Your task to perform on an android device: What's on my calendar today? Image 0: 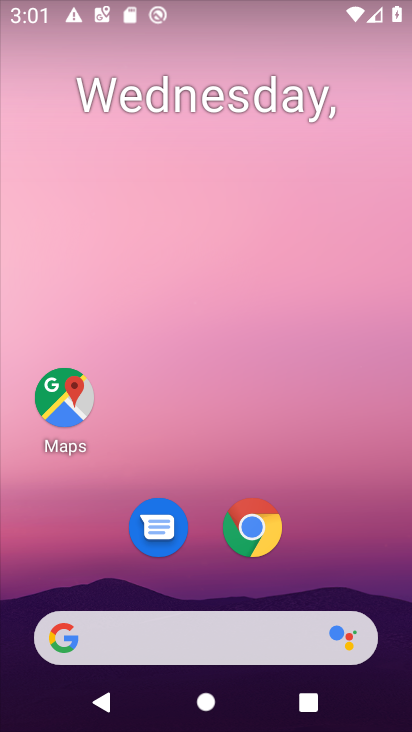
Step 0: drag from (315, 489) to (326, 92)
Your task to perform on an android device: What's on my calendar today? Image 1: 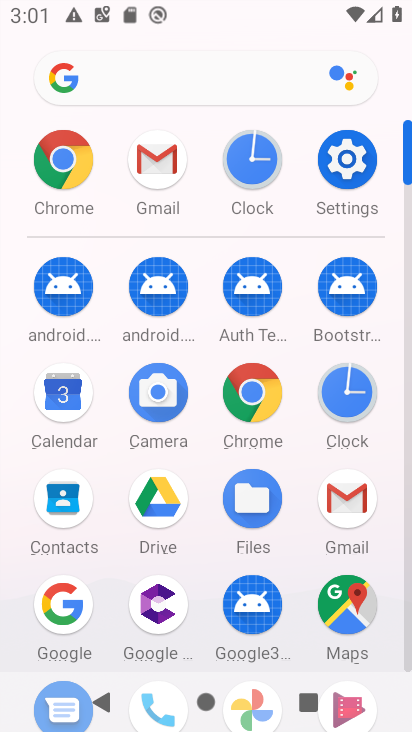
Step 1: click (71, 400)
Your task to perform on an android device: What's on my calendar today? Image 2: 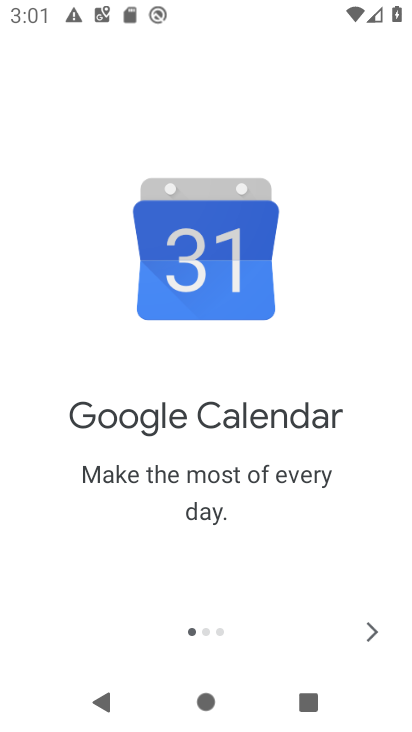
Step 2: click (364, 622)
Your task to perform on an android device: What's on my calendar today? Image 3: 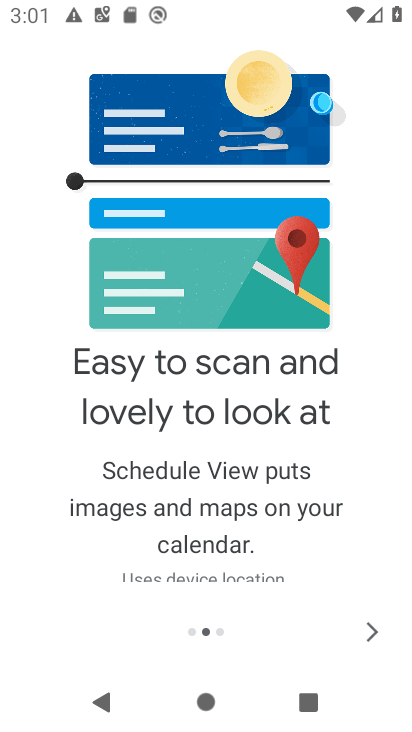
Step 3: click (386, 632)
Your task to perform on an android device: What's on my calendar today? Image 4: 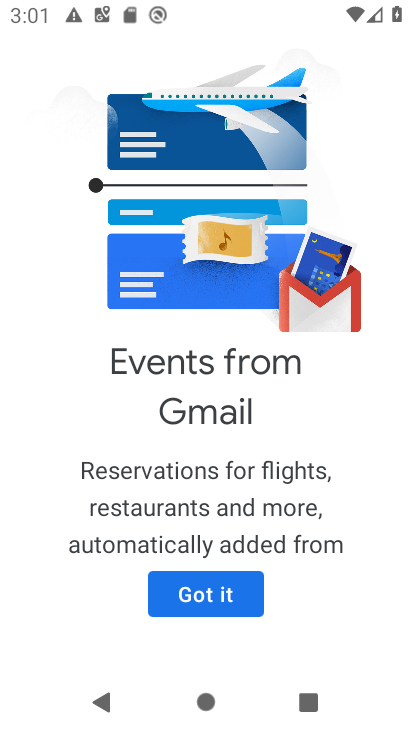
Step 4: click (222, 614)
Your task to perform on an android device: What's on my calendar today? Image 5: 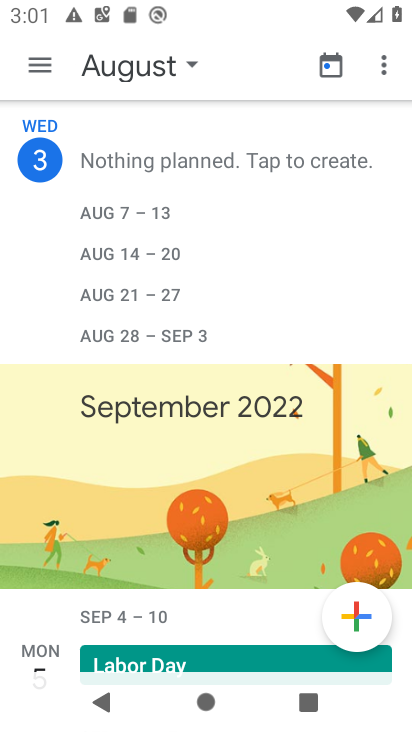
Step 5: click (45, 69)
Your task to perform on an android device: What's on my calendar today? Image 6: 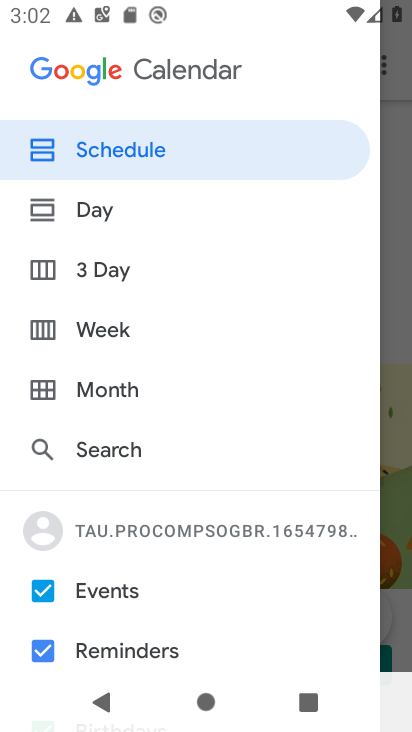
Step 6: click (392, 362)
Your task to perform on an android device: What's on my calendar today? Image 7: 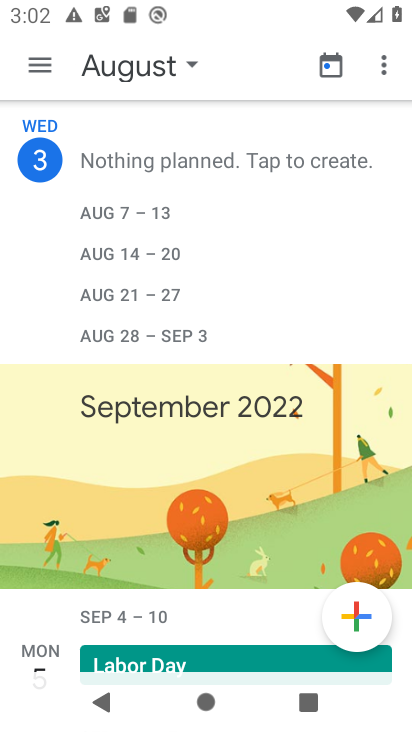
Step 7: click (172, 62)
Your task to perform on an android device: What's on my calendar today? Image 8: 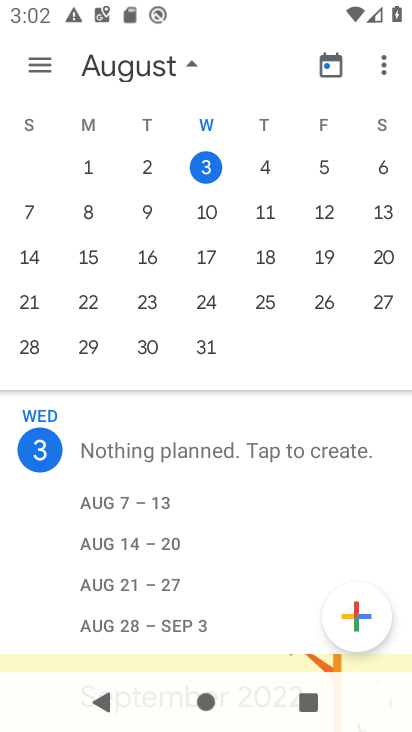
Step 8: click (209, 165)
Your task to perform on an android device: What's on my calendar today? Image 9: 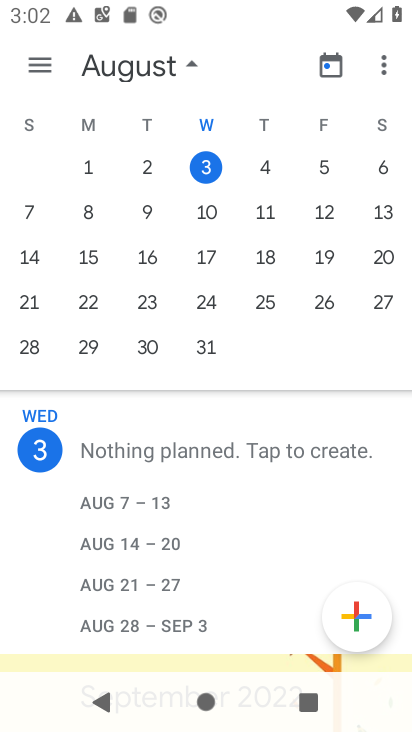
Step 9: click (201, 504)
Your task to perform on an android device: What's on my calendar today? Image 10: 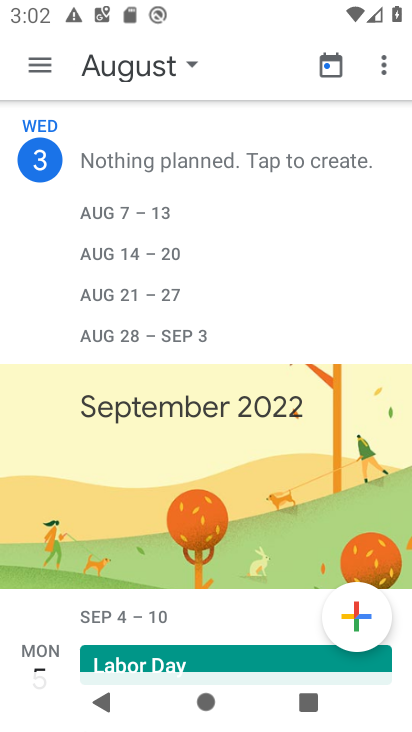
Step 10: click (40, 65)
Your task to perform on an android device: What's on my calendar today? Image 11: 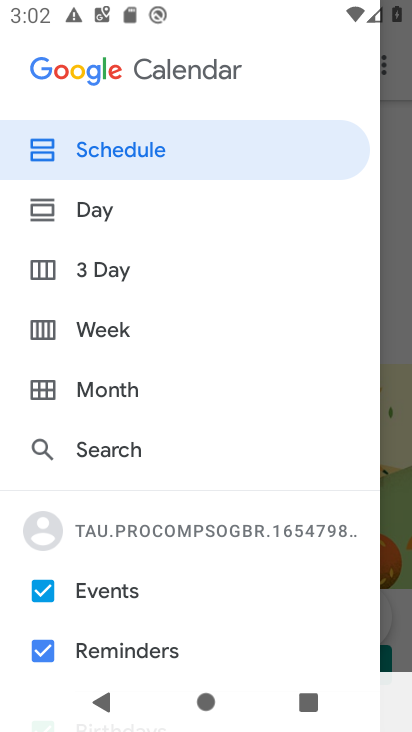
Step 11: click (94, 208)
Your task to perform on an android device: What's on my calendar today? Image 12: 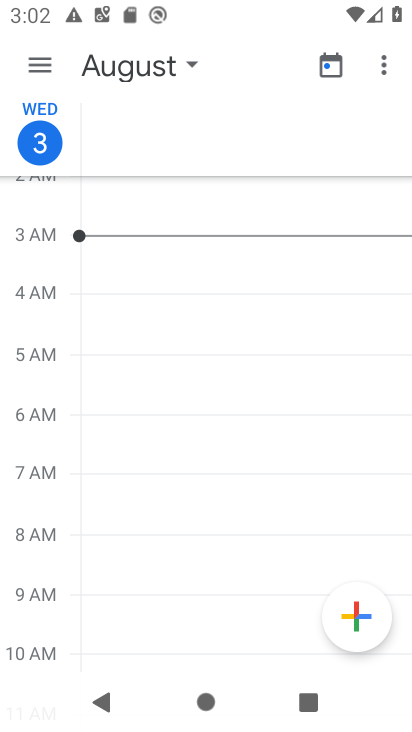
Step 12: task complete